Your task to perform on an android device: create a new album in the google photos Image 0: 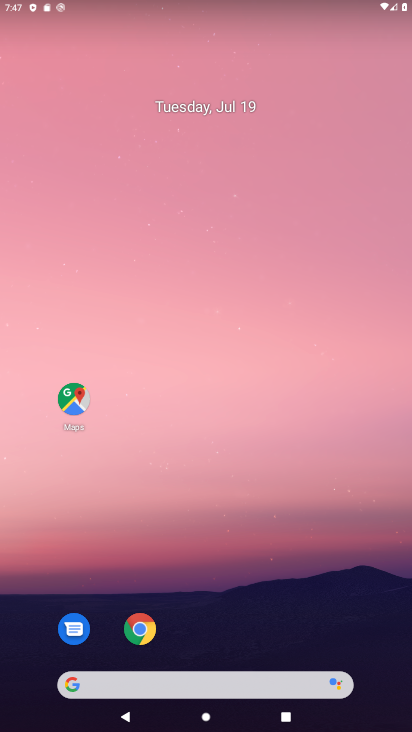
Step 0: drag from (206, 597) to (240, 17)
Your task to perform on an android device: create a new album in the google photos Image 1: 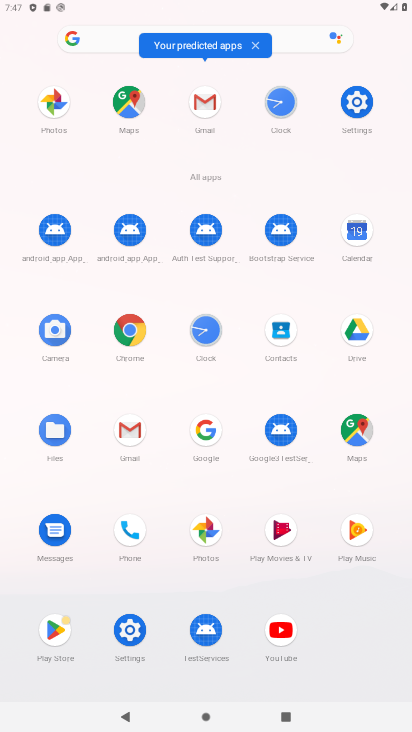
Step 1: click (200, 535)
Your task to perform on an android device: create a new album in the google photos Image 2: 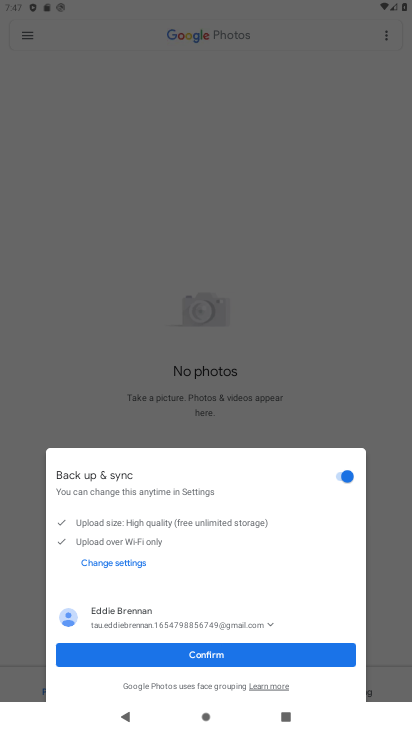
Step 2: click (189, 655)
Your task to perform on an android device: create a new album in the google photos Image 3: 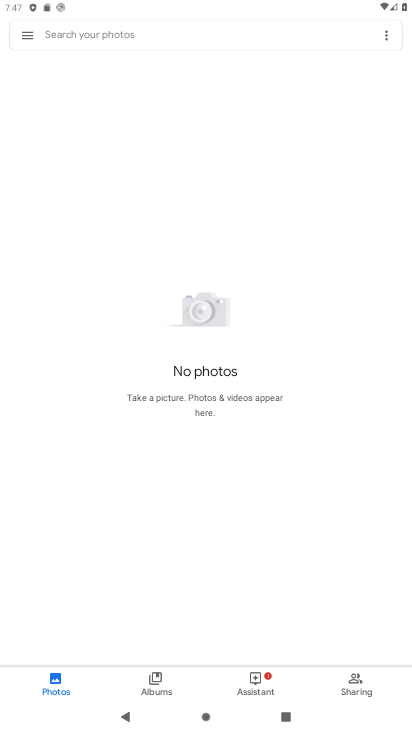
Step 3: click (159, 669)
Your task to perform on an android device: create a new album in the google photos Image 4: 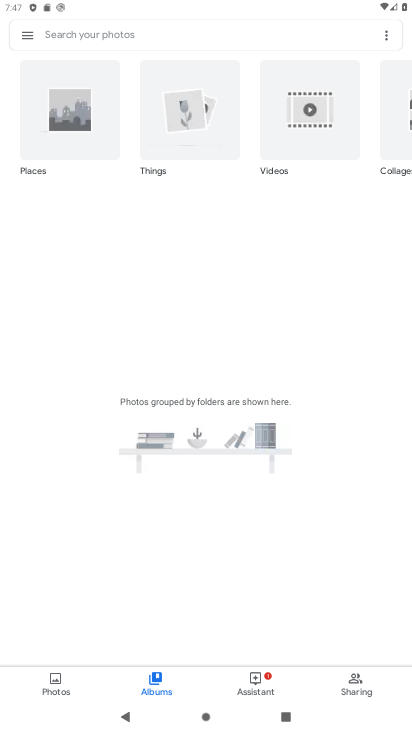
Step 4: task complete